Your task to perform on an android device: open app "Roku - Official Remote Control" Image 0: 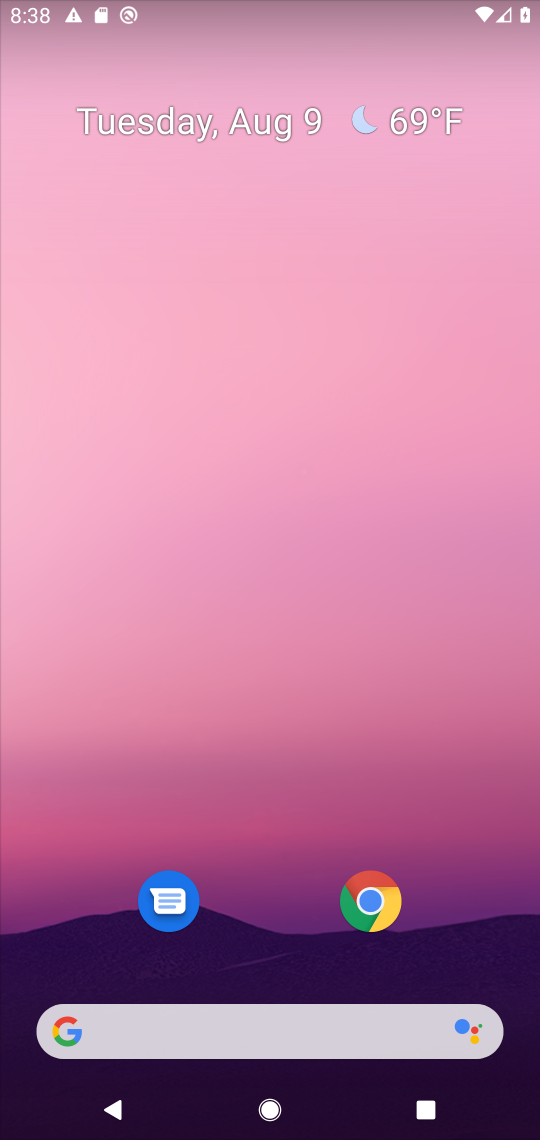
Step 0: drag from (242, 993) to (243, 277)
Your task to perform on an android device: open app "Roku - Official Remote Control" Image 1: 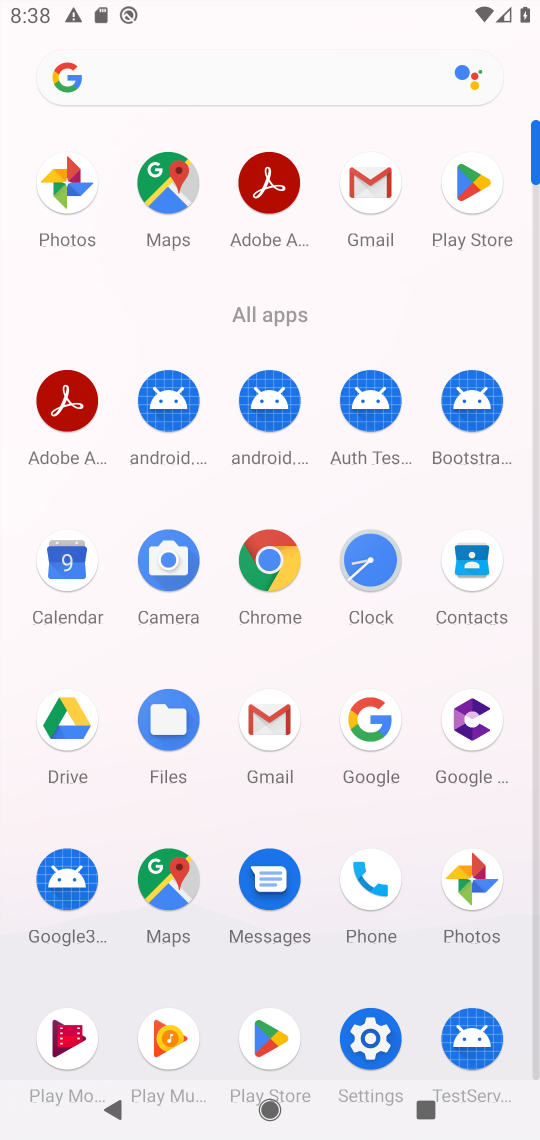
Step 1: click (478, 182)
Your task to perform on an android device: open app "Roku - Official Remote Control" Image 2: 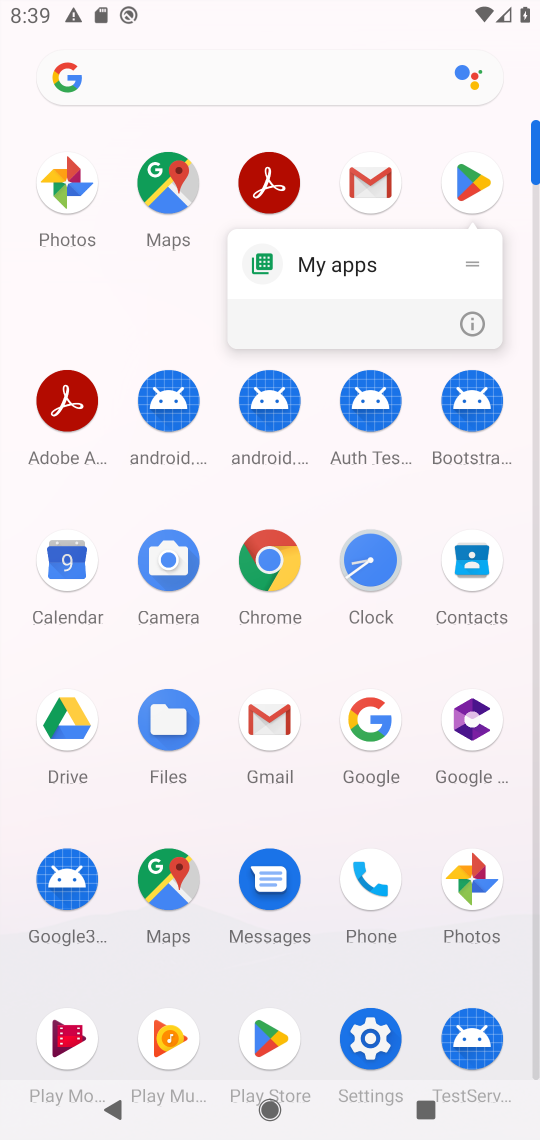
Step 2: click (478, 182)
Your task to perform on an android device: open app "Roku - Official Remote Control" Image 3: 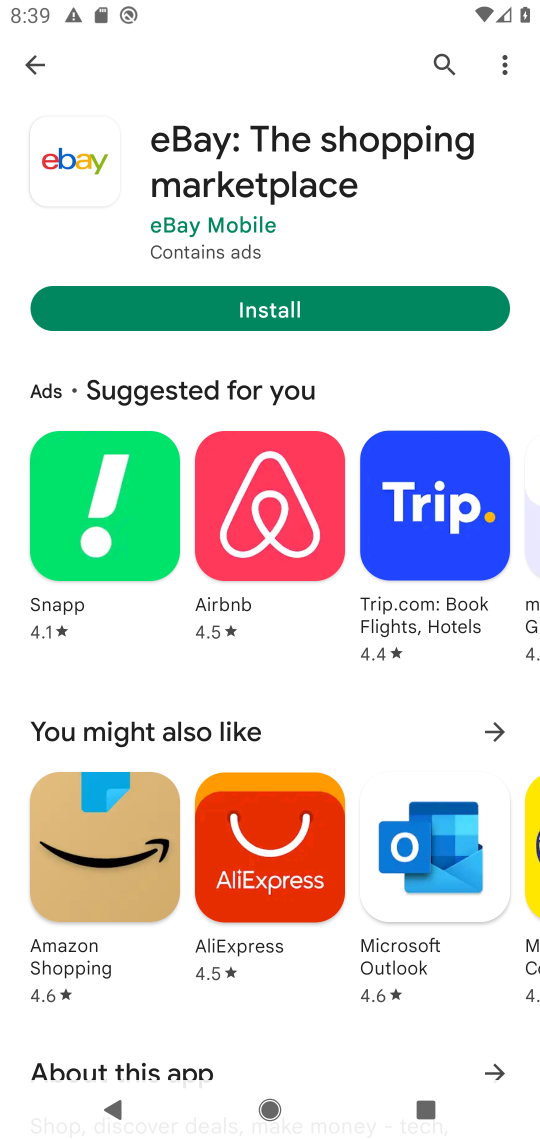
Step 3: click (37, 62)
Your task to perform on an android device: open app "Roku - Official Remote Control" Image 4: 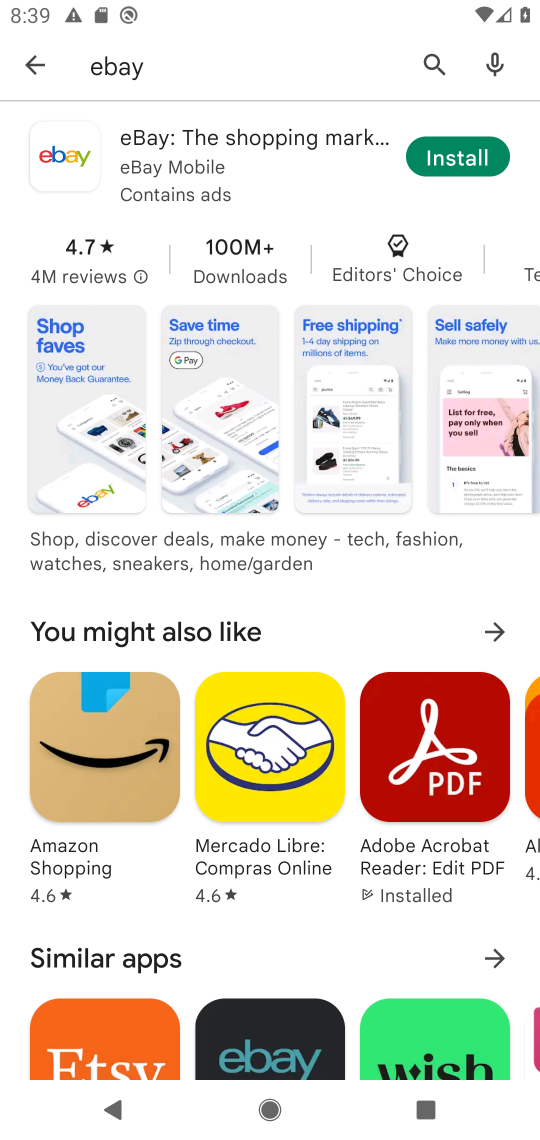
Step 4: click (24, 63)
Your task to perform on an android device: open app "Roku - Official Remote Control" Image 5: 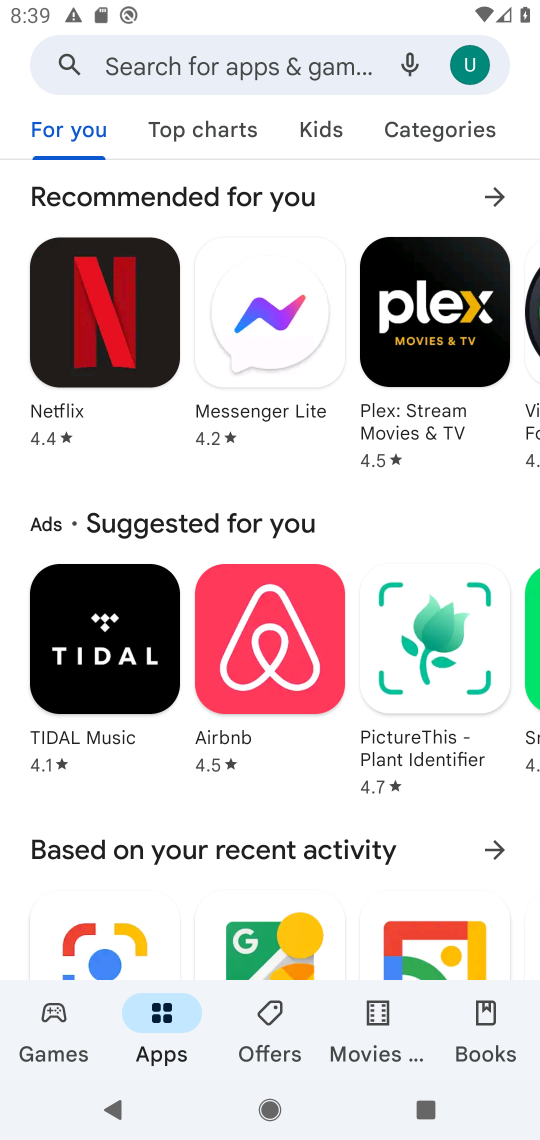
Step 5: click (194, 56)
Your task to perform on an android device: open app "Roku - Official Remote Control" Image 6: 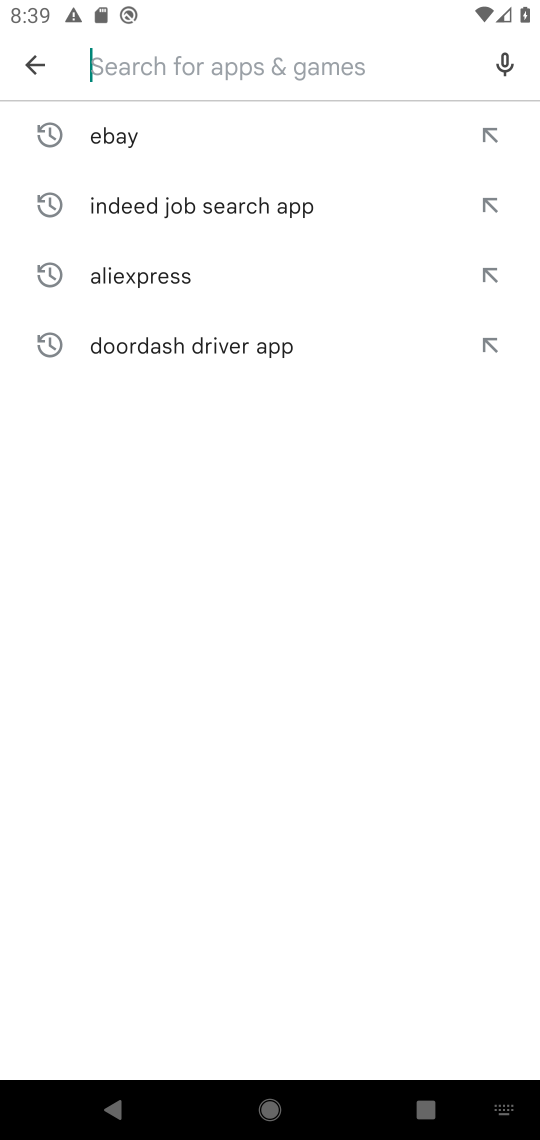
Step 6: click (185, 48)
Your task to perform on an android device: open app "Roku - Official Remote Control" Image 7: 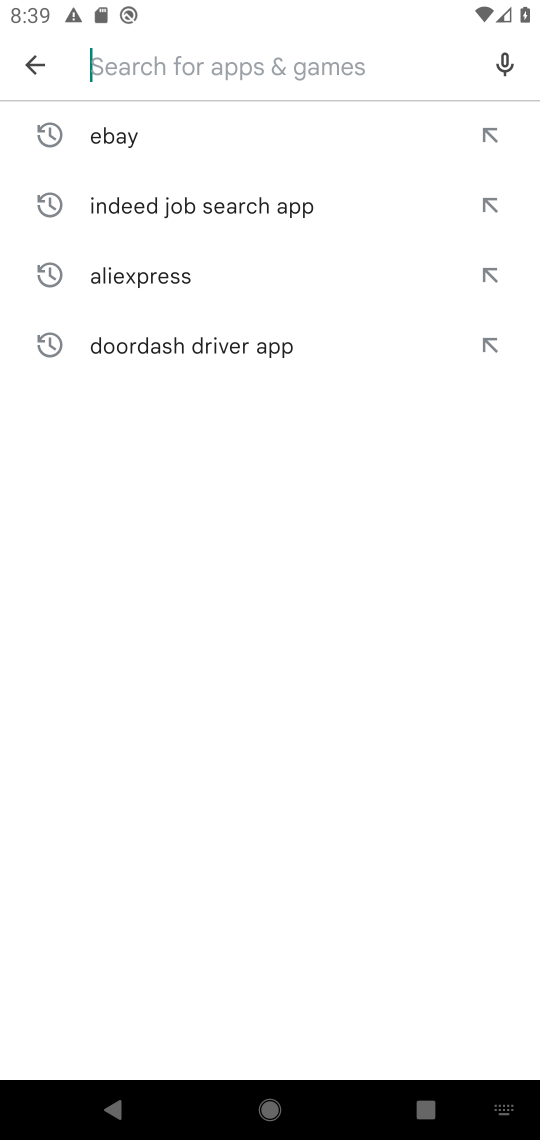
Step 7: type ""Roku "
Your task to perform on an android device: open app "Roku - Official Remote Control" Image 8: 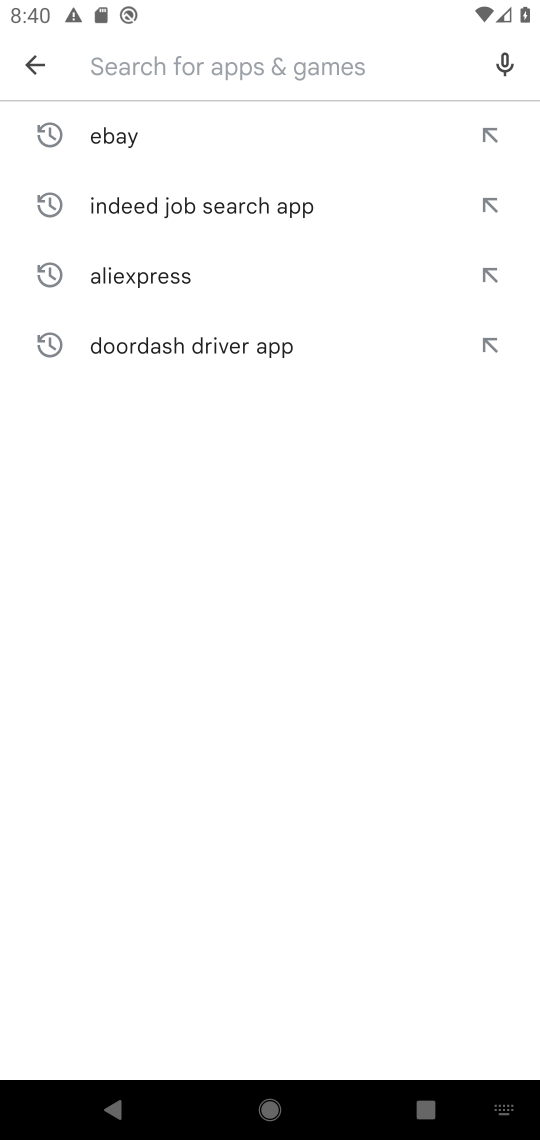
Step 8: click (292, 74)
Your task to perform on an android device: open app "Roku - Official Remote Control" Image 9: 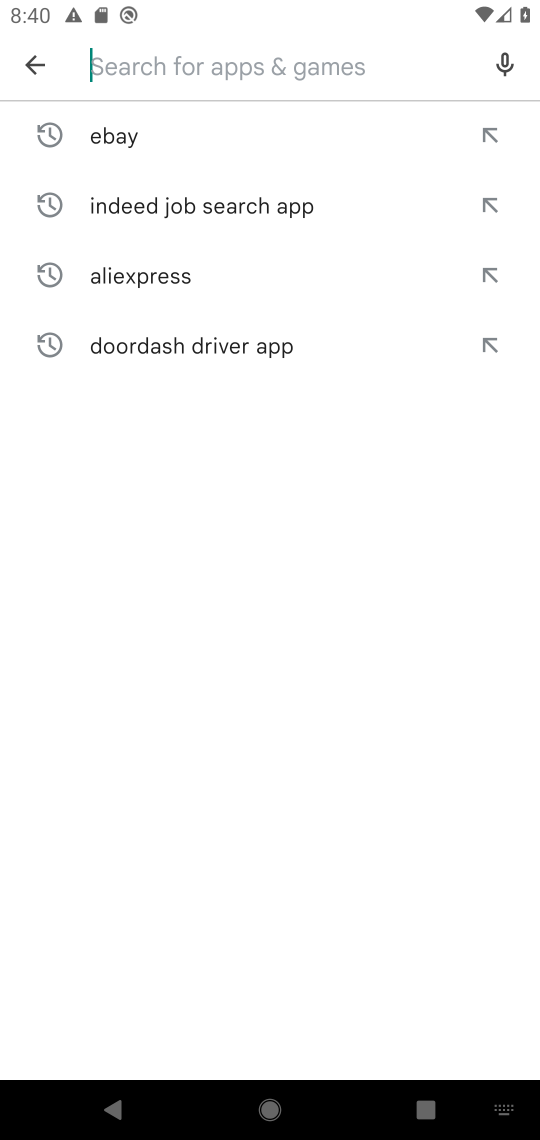
Step 9: type "Roku"
Your task to perform on an android device: open app "Roku - Official Remote Control" Image 10: 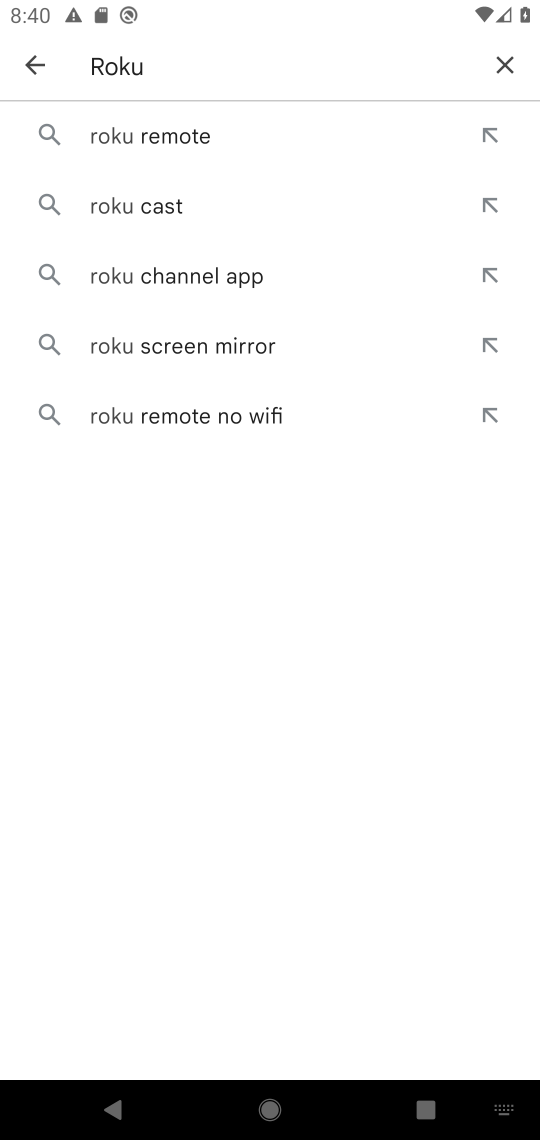
Step 10: click (109, 132)
Your task to perform on an android device: open app "Roku - Official Remote Control" Image 11: 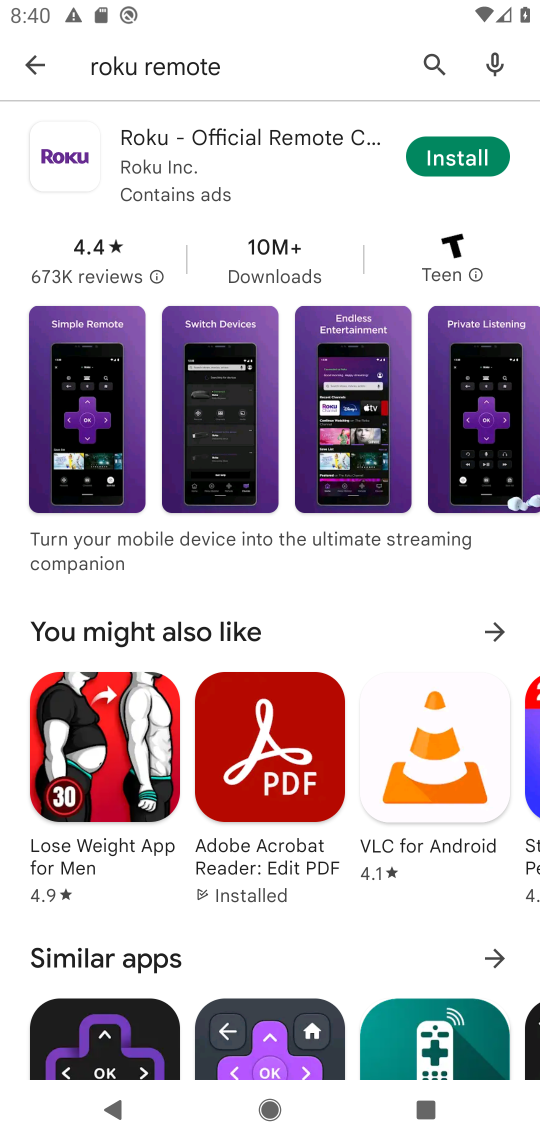
Step 11: click (420, 137)
Your task to perform on an android device: open app "Roku - Official Remote Control" Image 12: 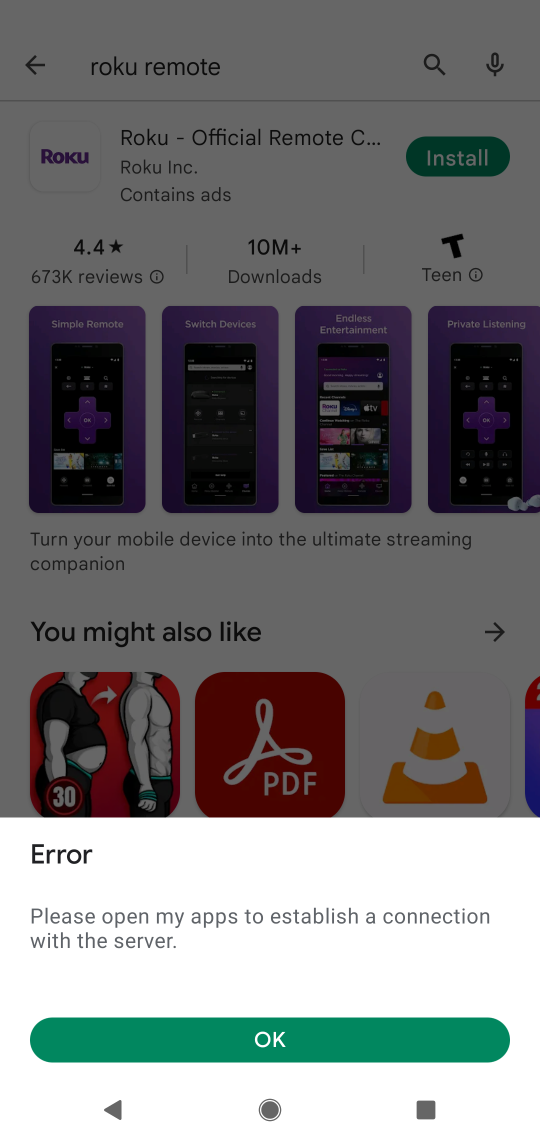
Step 12: click (236, 1051)
Your task to perform on an android device: open app "Roku - Official Remote Control" Image 13: 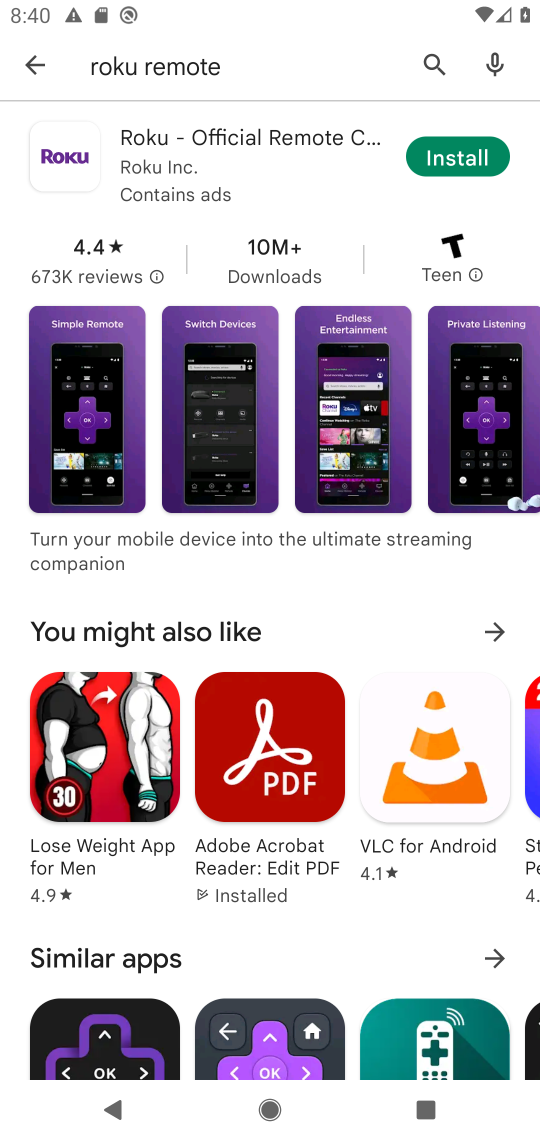
Step 13: click (472, 166)
Your task to perform on an android device: open app "Roku - Official Remote Control" Image 14: 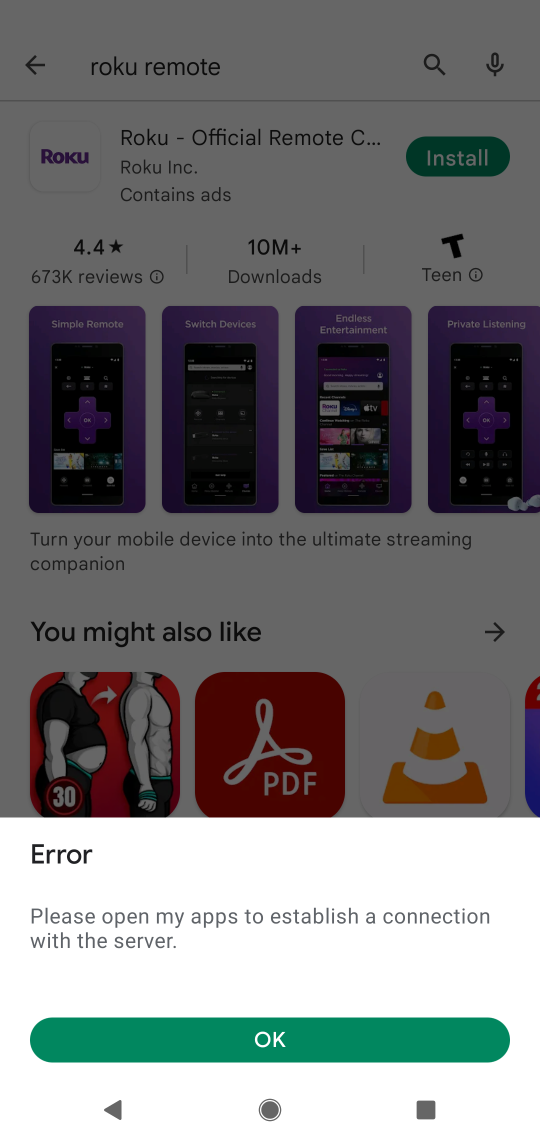
Step 14: click (267, 1032)
Your task to perform on an android device: open app "Roku - Official Remote Control" Image 15: 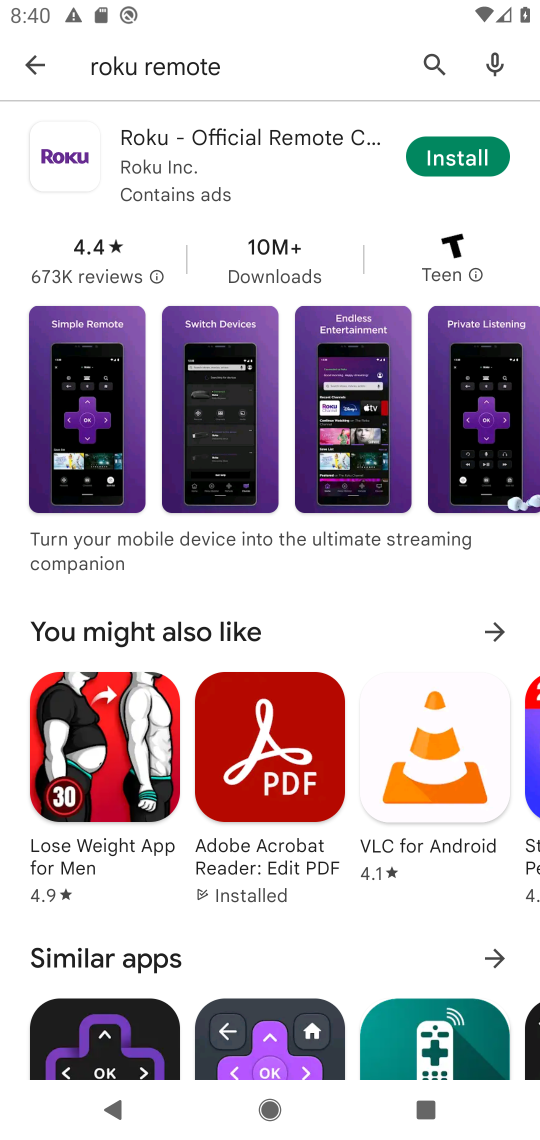
Step 15: click (470, 147)
Your task to perform on an android device: open app "Roku - Official Remote Control" Image 16: 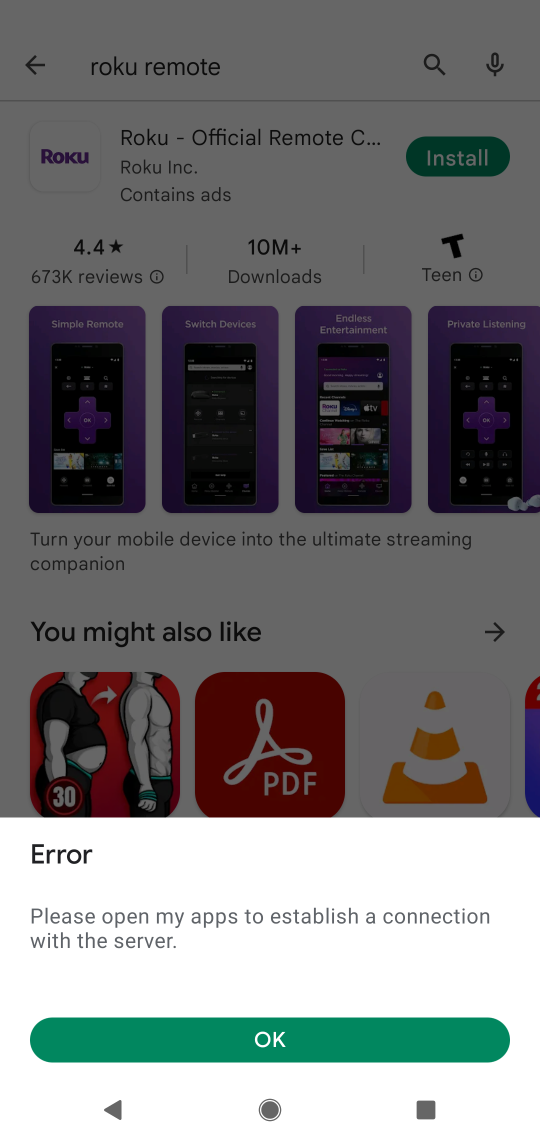
Step 16: task complete